Your task to perform on an android device: Go to Yahoo.com Image 0: 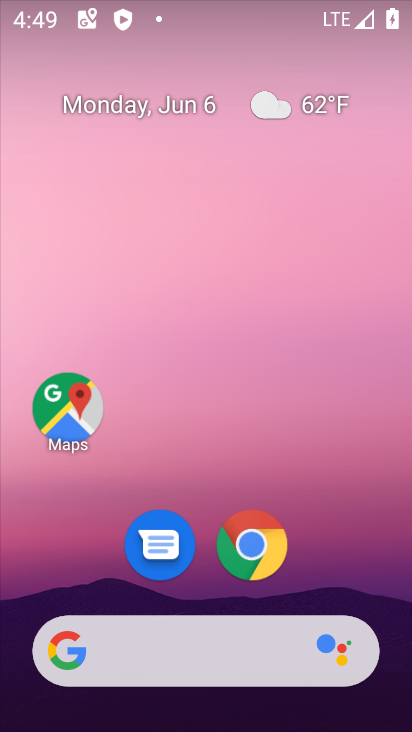
Step 0: click (252, 541)
Your task to perform on an android device: Go to Yahoo.com Image 1: 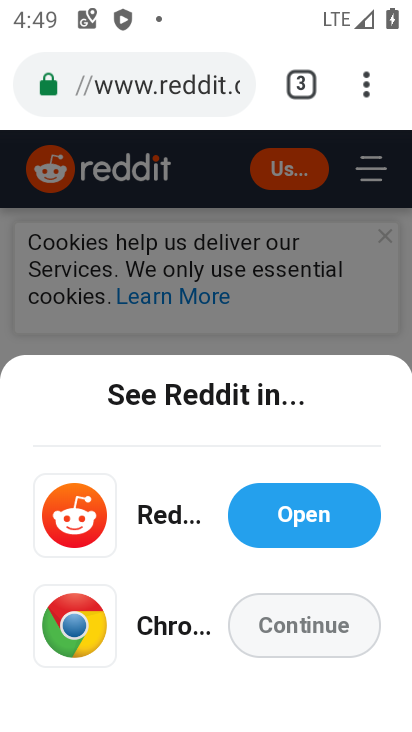
Step 1: click (367, 90)
Your task to perform on an android device: Go to Yahoo.com Image 2: 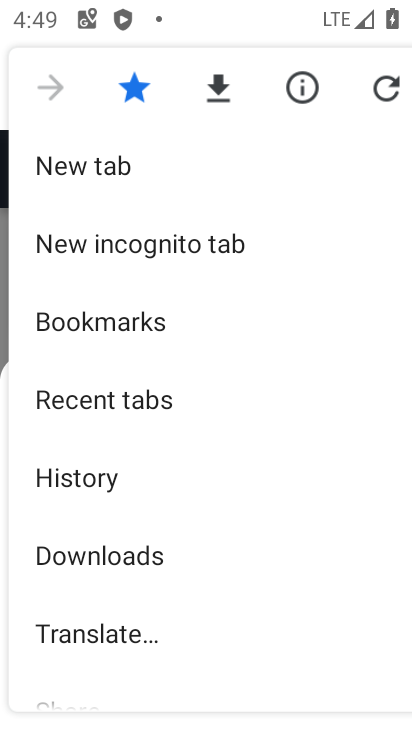
Step 2: click (96, 168)
Your task to perform on an android device: Go to Yahoo.com Image 3: 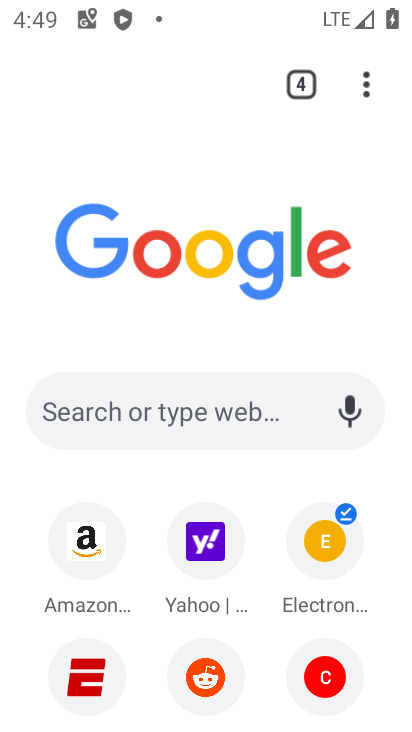
Step 3: click (208, 540)
Your task to perform on an android device: Go to Yahoo.com Image 4: 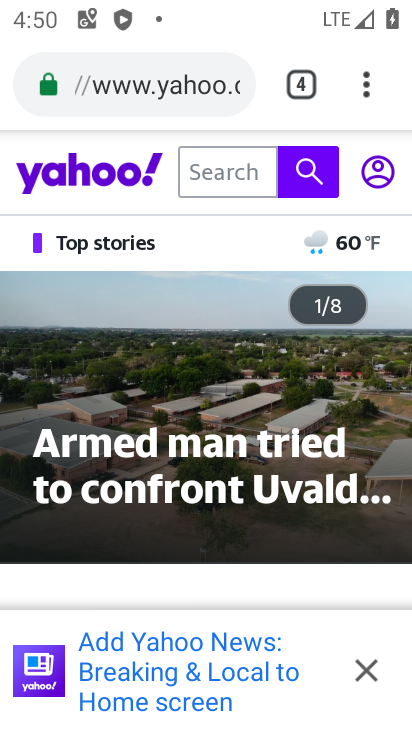
Step 4: task complete